Your task to perform on an android device: install app "Nova Launcher" Image 0: 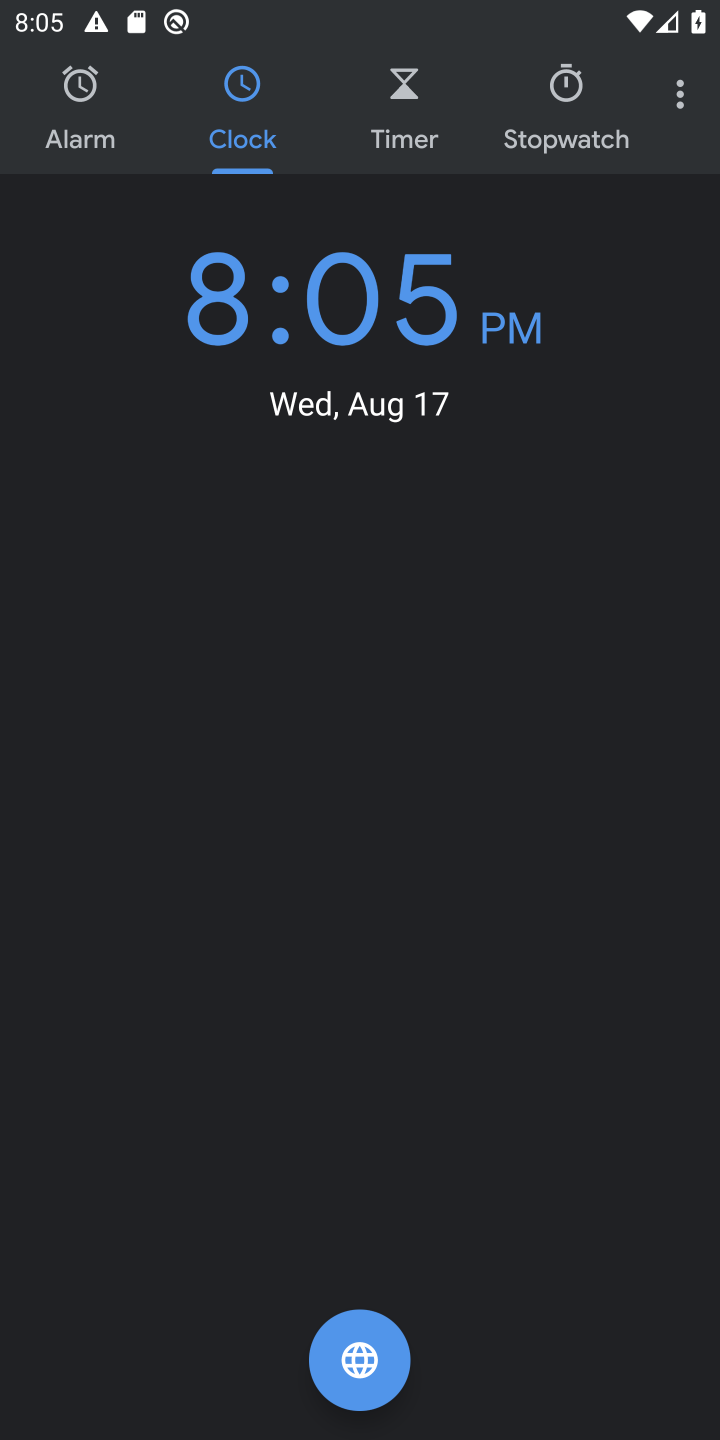
Step 0: press home button
Your task to perform on an android device: install app "Nova Launcher" Image 1: 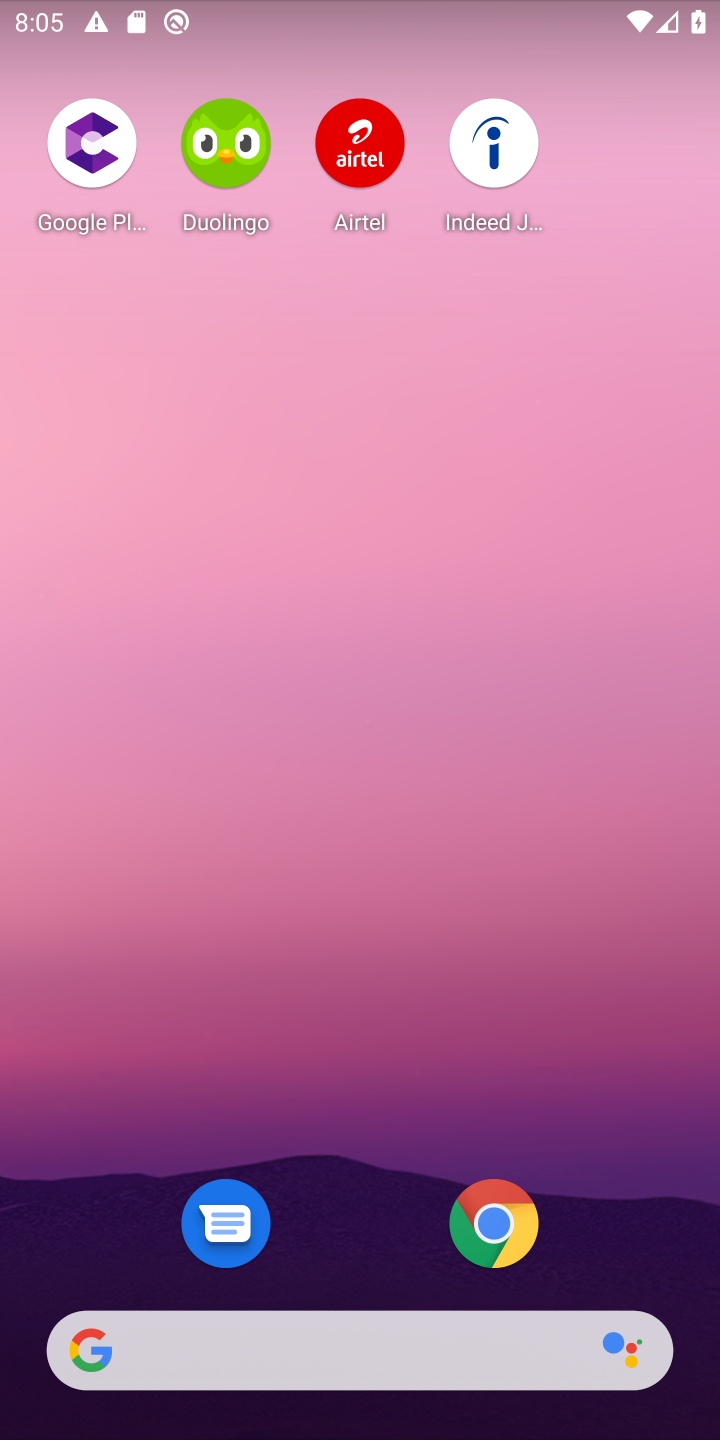
Step 1: drag from (305, 1163) to (265, 94)
Your task to perform on an android device: install app "Nova Launcher" Image 2: 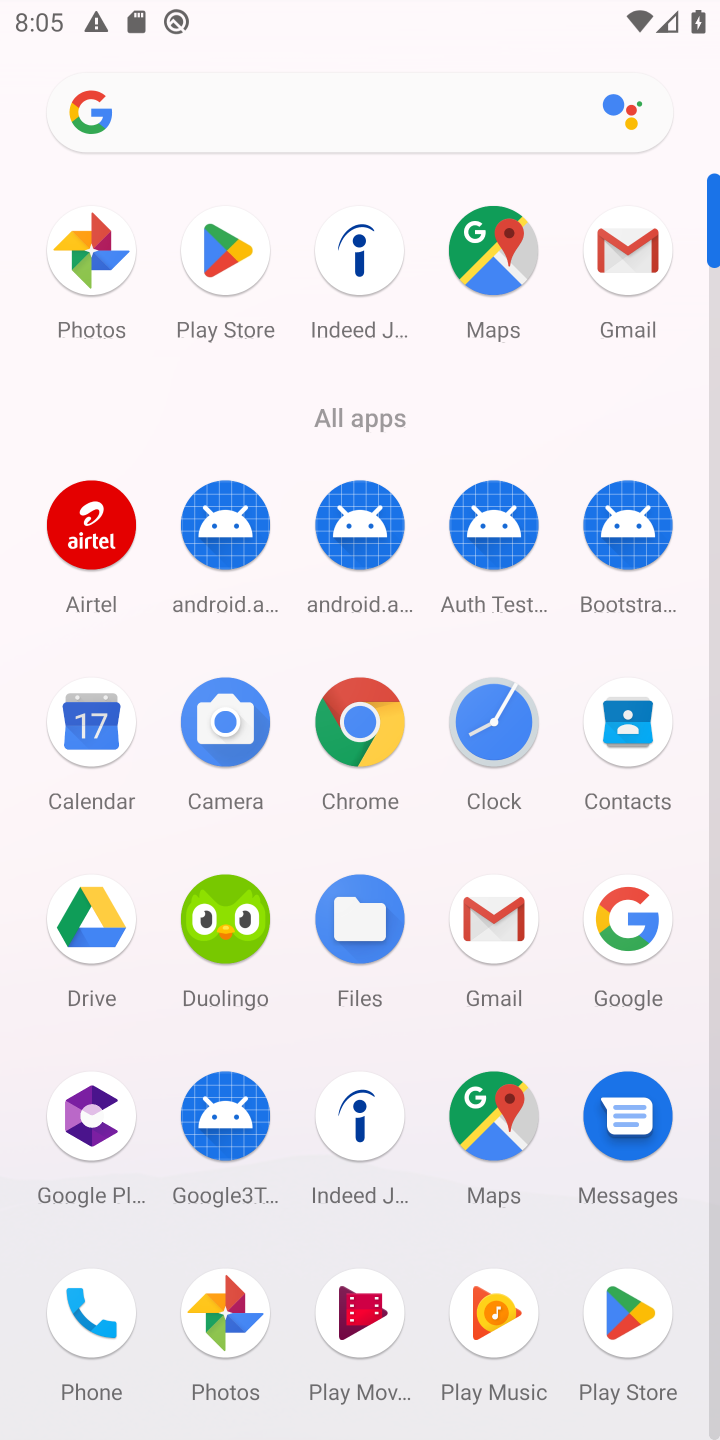
Step 2: click (623, 1311)
Your task to perform on an android device: install app "Nova Launcher" Image 3: 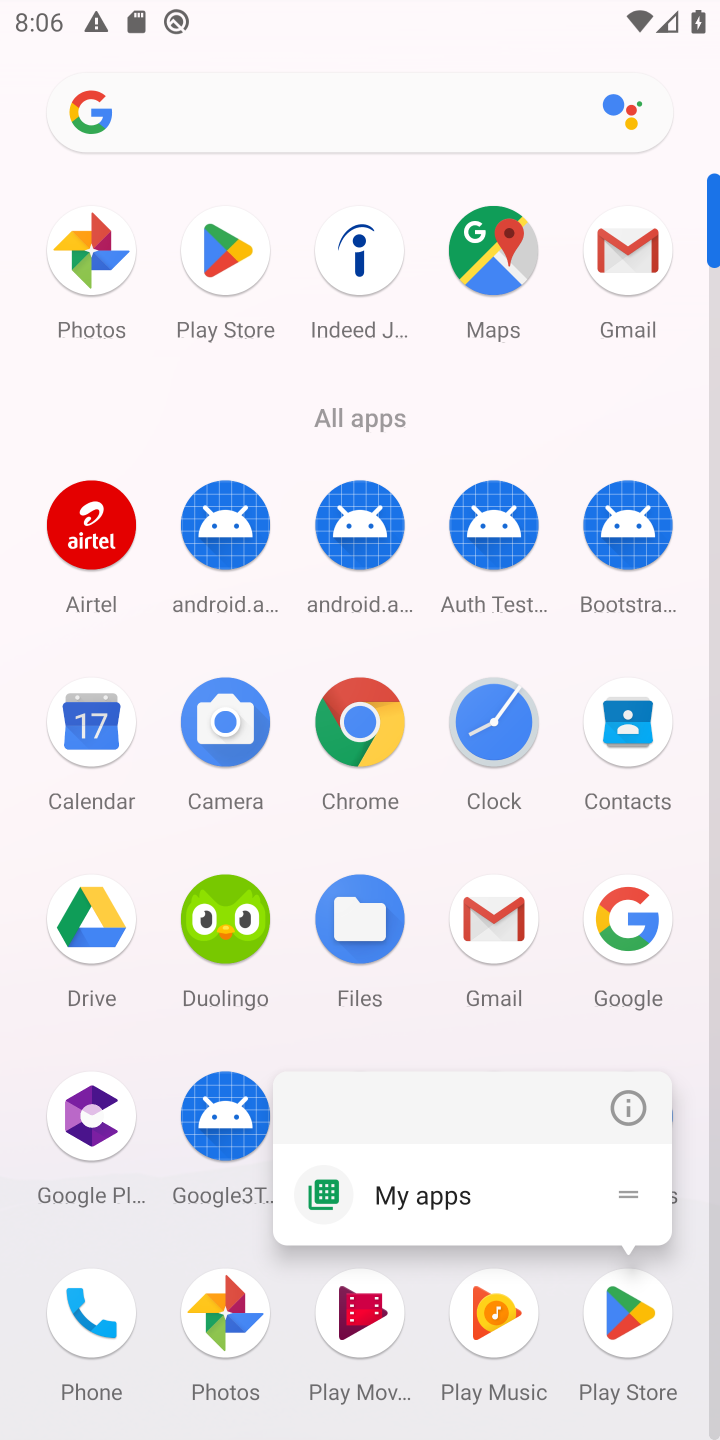
Step 3: click (620, 1320)
Your task to perform on an android device: install app "Nova Launcher" Image 4: 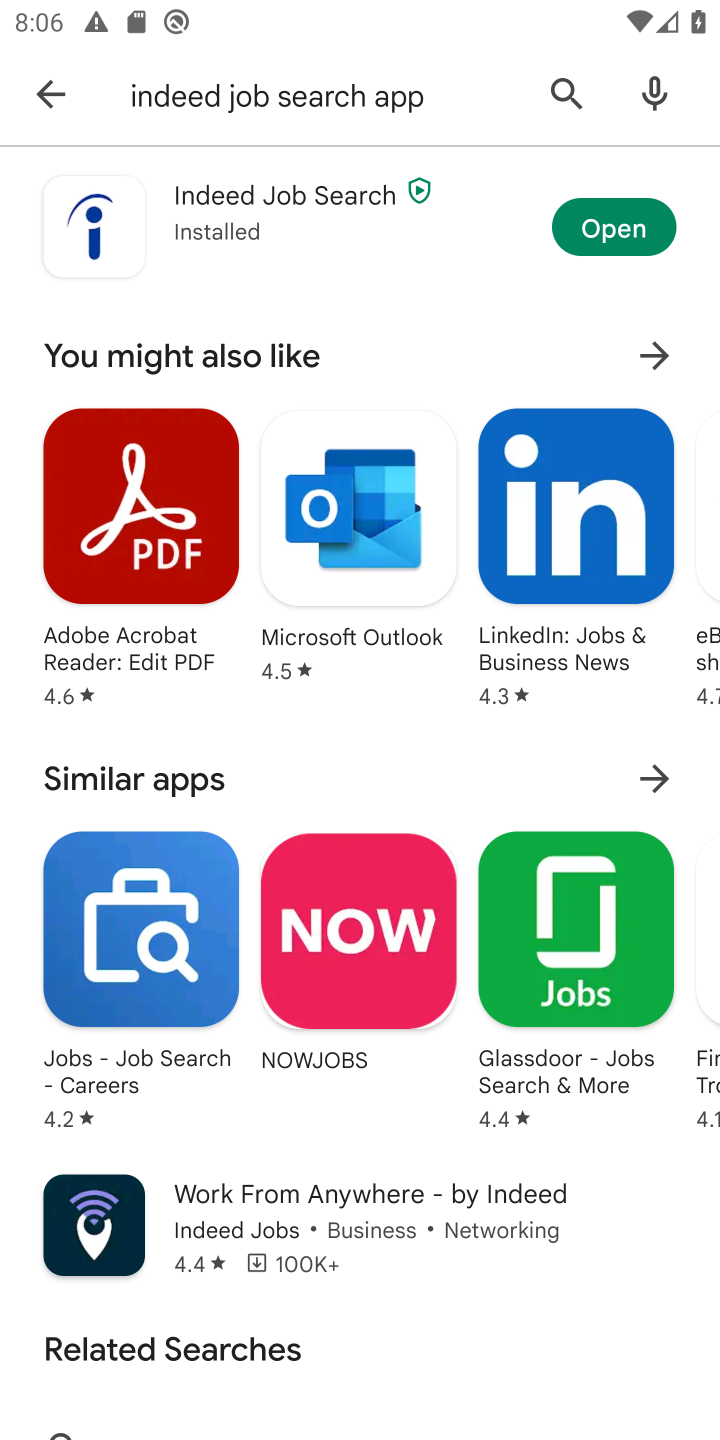
Step 4: task complete